Your task to perform on an android device: toggle wifi Image 0: 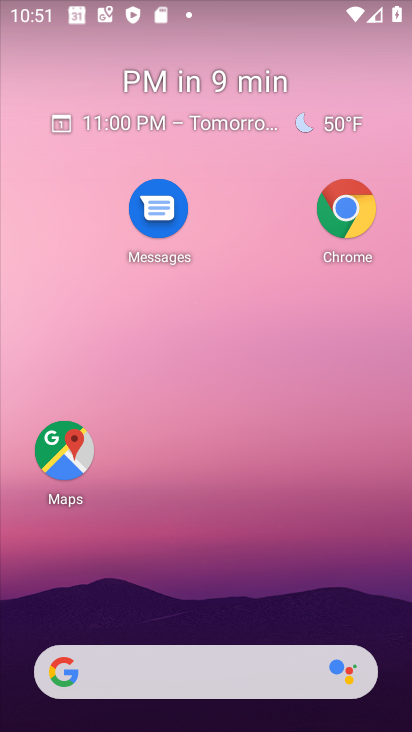
Step 0: drag from (249, 661) to (51, 1)
Your task to perform on an android device: toggle wifi Image 1: 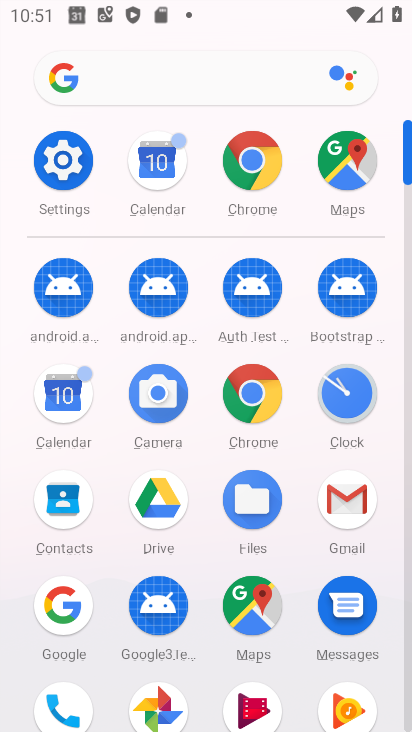
Step 1: click (58, 166)
Your task to perform on an android device: toggle wifi Image 2: 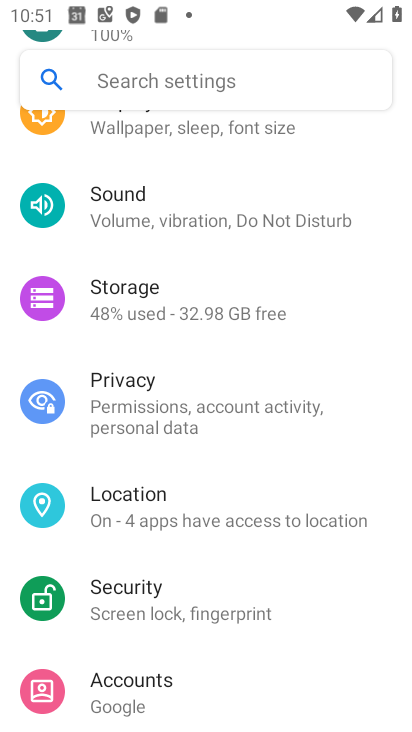
Step 2: drag from (154, 166) to (117, 716)
Your task to perform on an android device: toggle wifi Image 3: 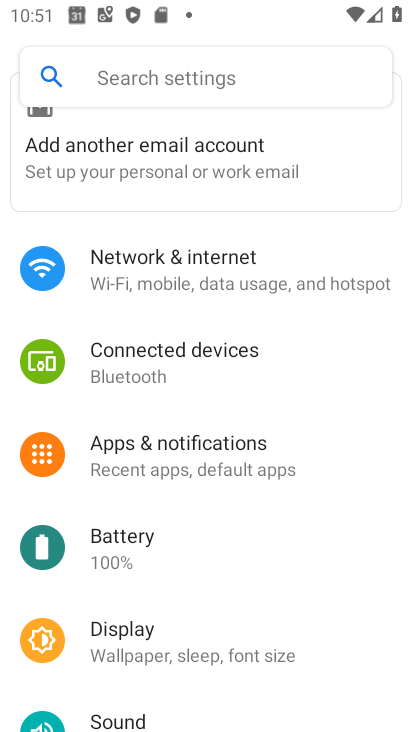
Step 3: click (202, 291)
Your task to perform on an android device: toggle wifi Image 4: 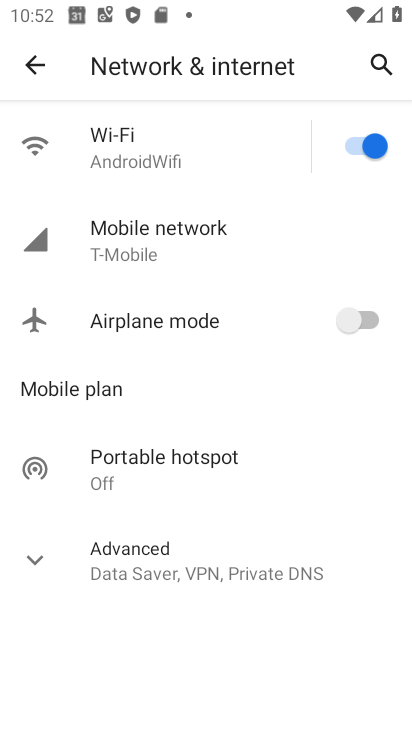
Step 4: click (368, 148)
Your task to perform on an android device: toggle wifi Image 5: 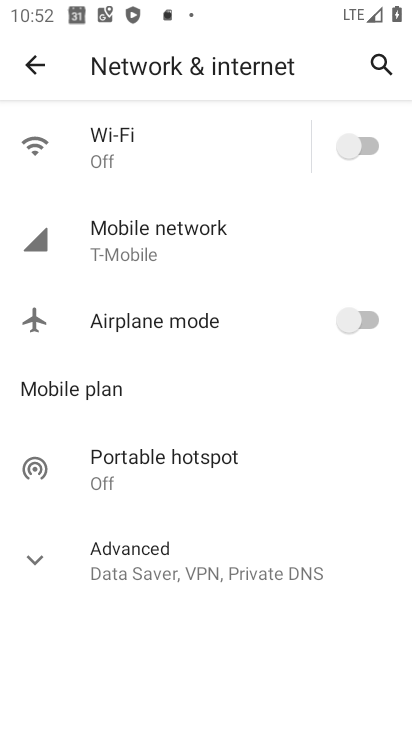
Step 5: task complete